Your task to perform on an android device: Open settings on Google Maps Image 0: 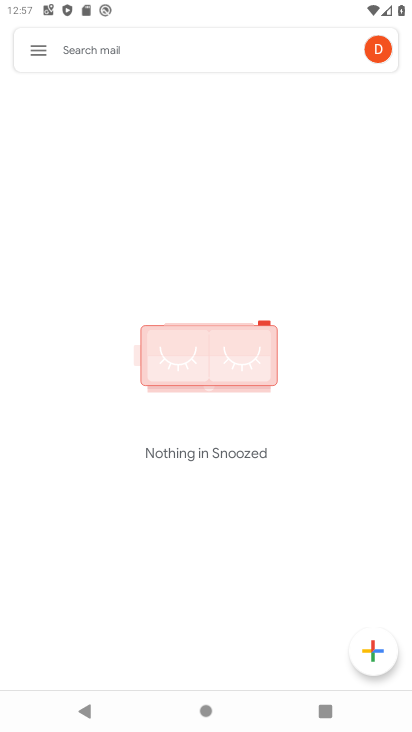
Step 0: press back button
Your task to perform on an android device: Open settings on Google Maps Image 1: 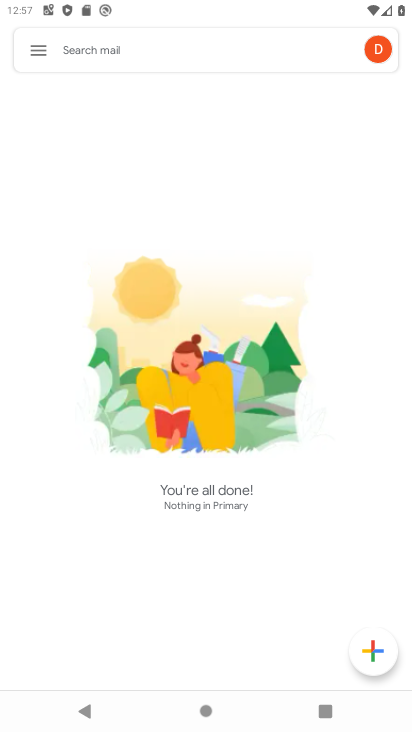
Step 1: press home button
Your task to perform on an android device: Open settings on Google Maps Image 2: 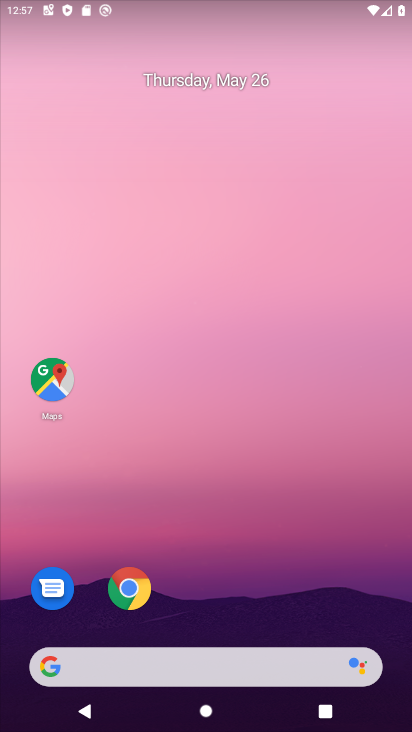
Step 2: click (43, 382)
Your task to perform on an android device: Open settings on Google Maps Image 3: 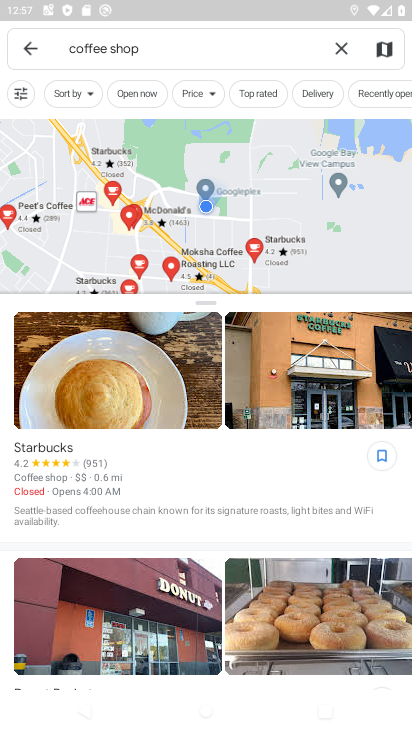
Step 3: click (19, 40)
Your task to perform on an android device: Open settings on Google Maps Image 4: 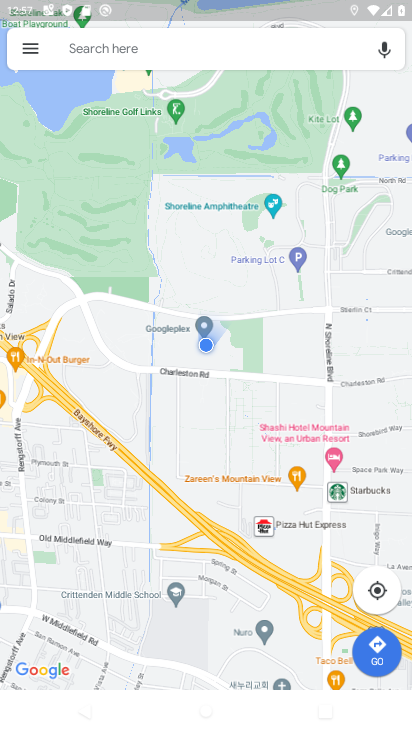
Step 4: task complete